Your task to perform on an android device: Add "logitech g910" to the cart on amazon, then select checkout. Image 0: 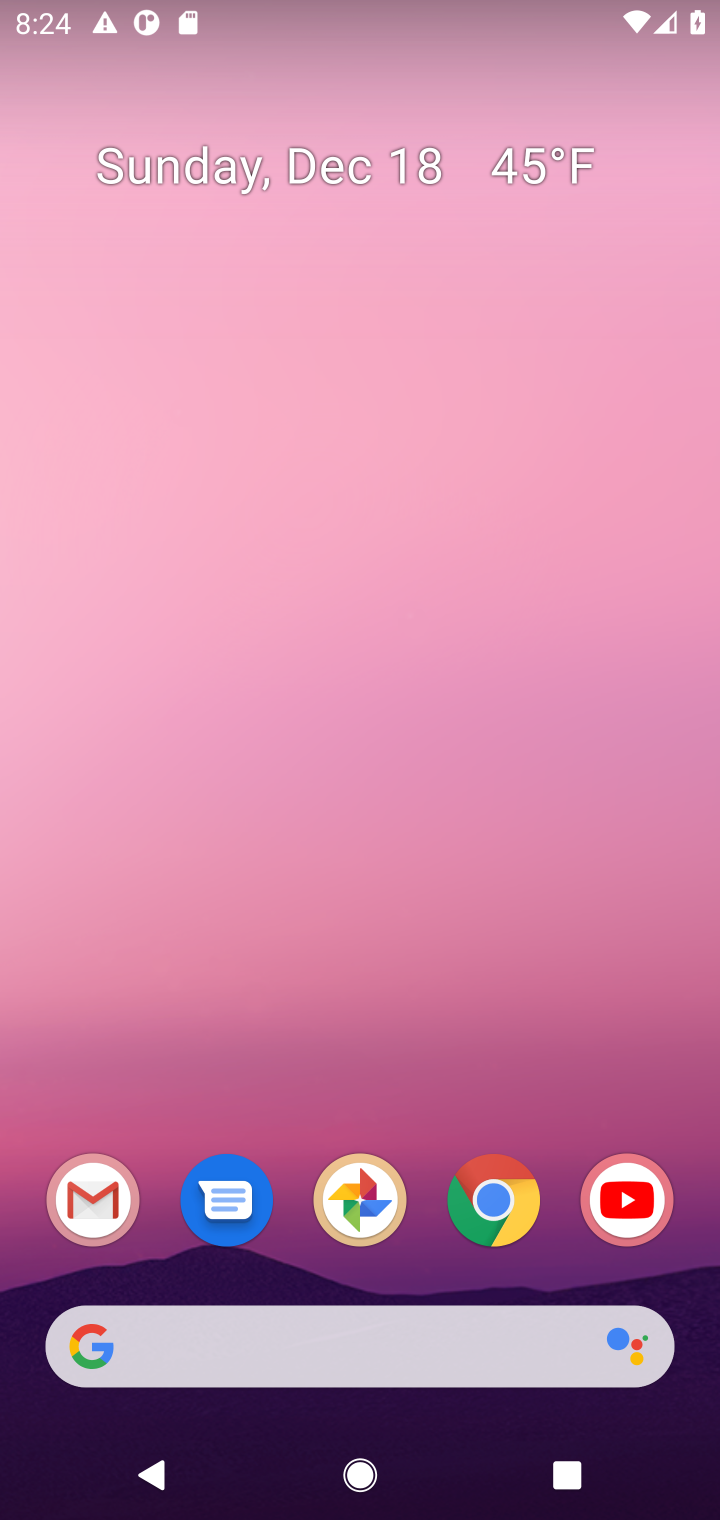
Step 0: click (490, 1212)
Your task to perform on an android device: Add "logitech g910" to the cart on amazon, then select checkout. Image 1: 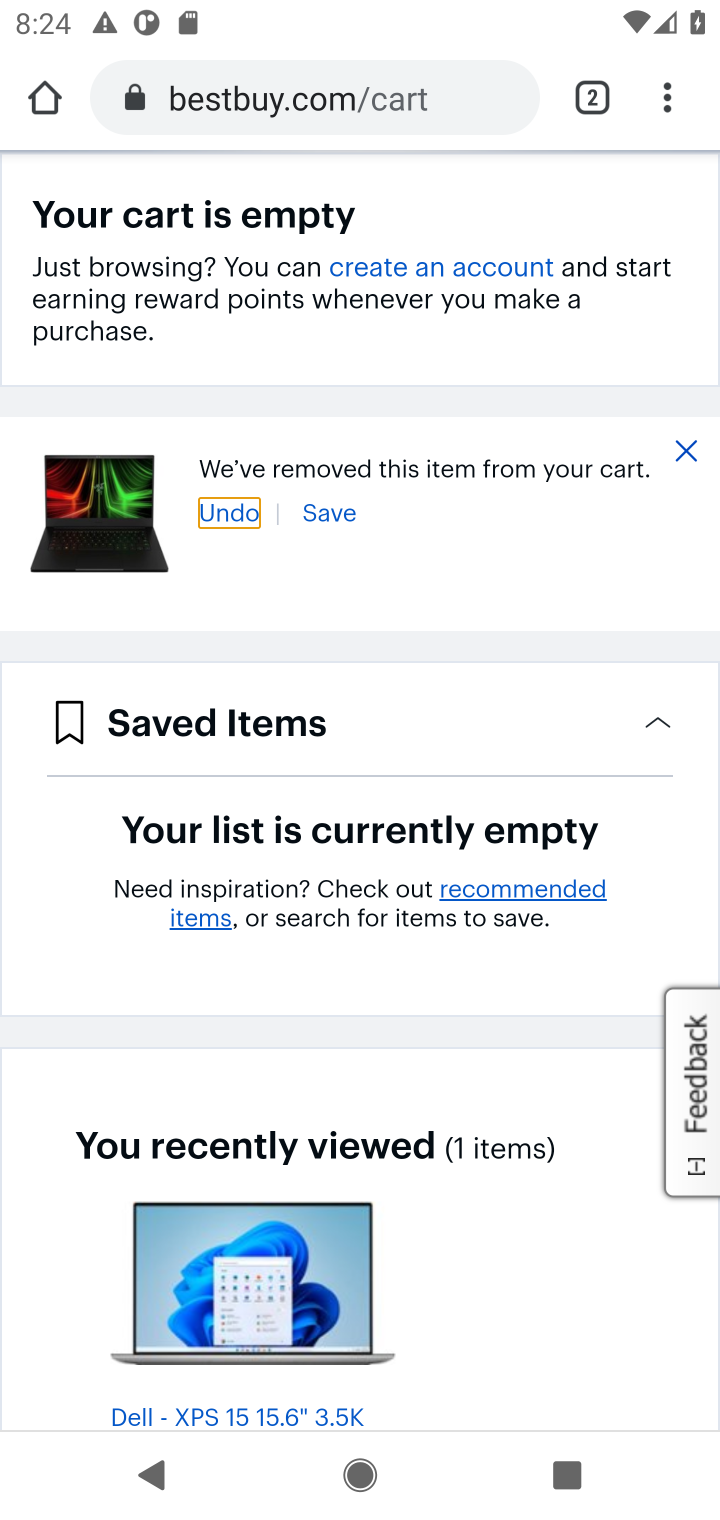
Step 1: click (239, 106)
Your task to perform on an android device: Add "logitech g910" to the cart on amazon, then select checkout. Image 2: 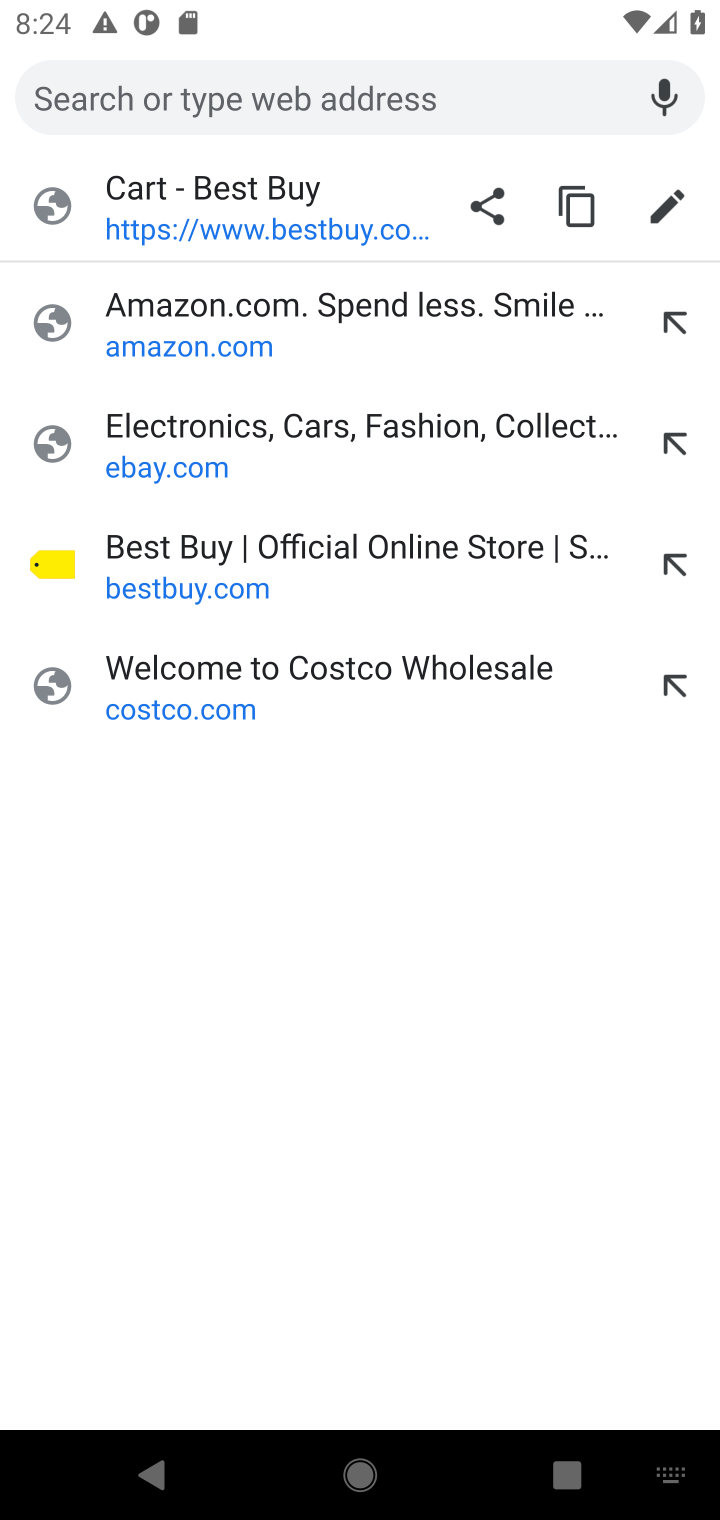
Step 2: click (258, 322)
Your task to perform on an android device: Add "logitech g910" to the cart on amazon, then select checkout. Image 3: 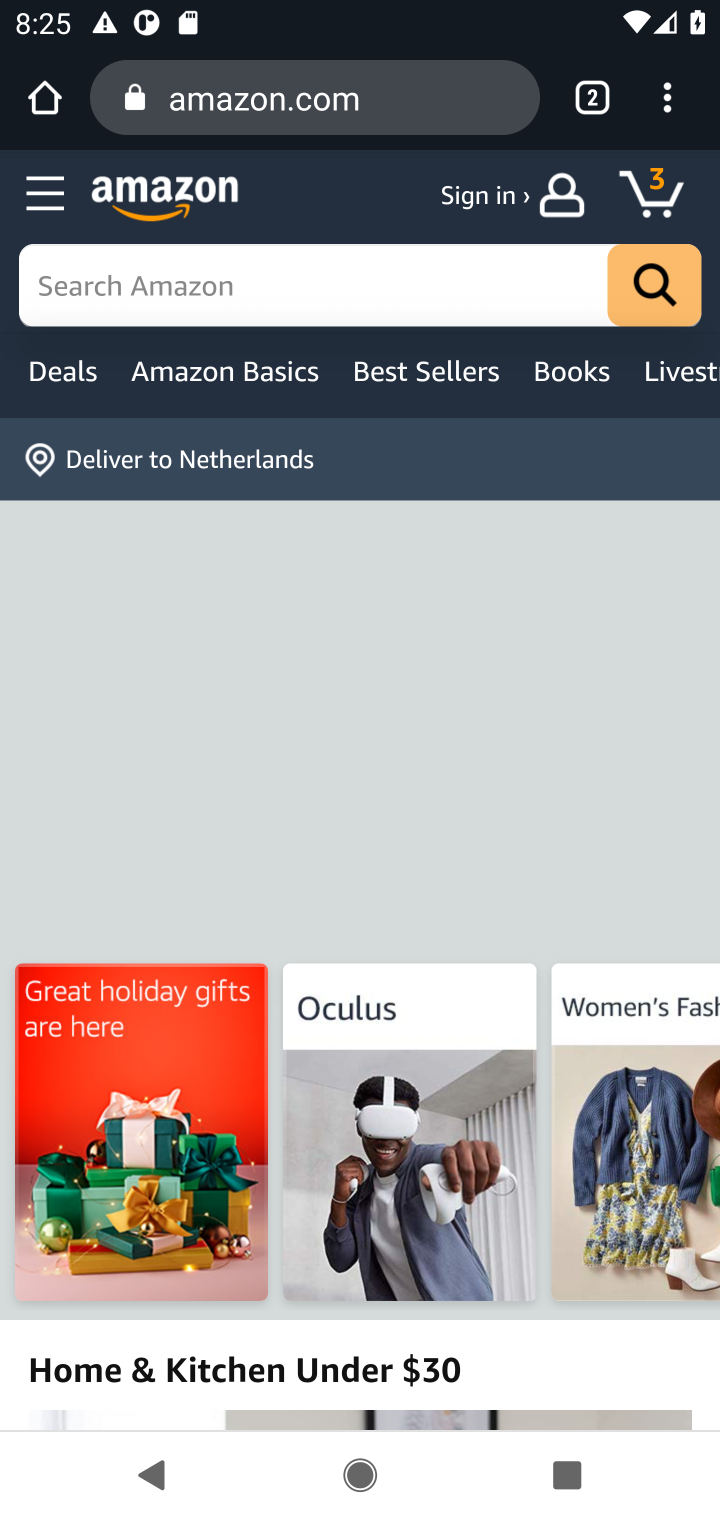
Step 3: click (191, 289)
Your task to perform on an android device: Add "logitech g910" to the cart on amazon, then select checkout. Image 4: 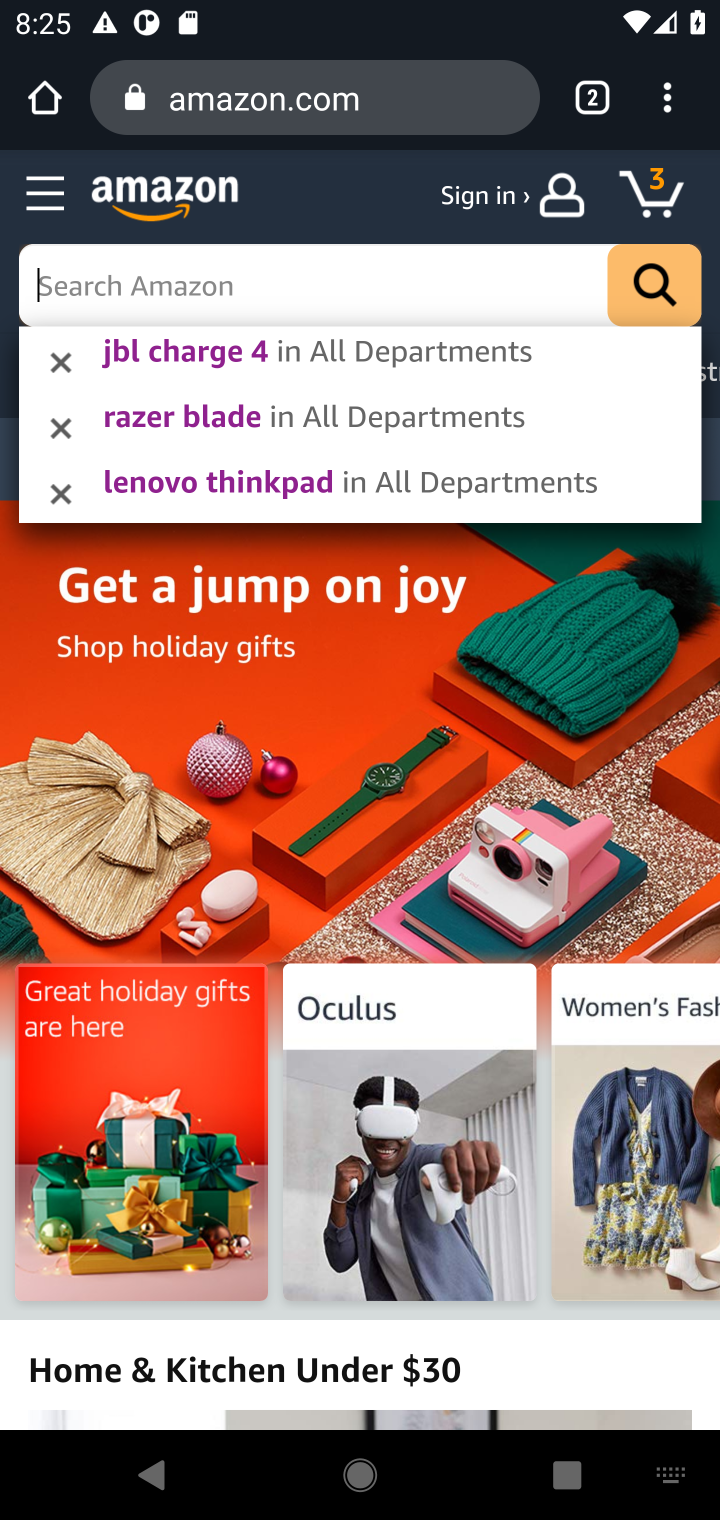
Step 4: type "logitech g910"
Your task to perform on an android device: Add "logitech g910" to the cart on amazon, then select checkout. Image 5: 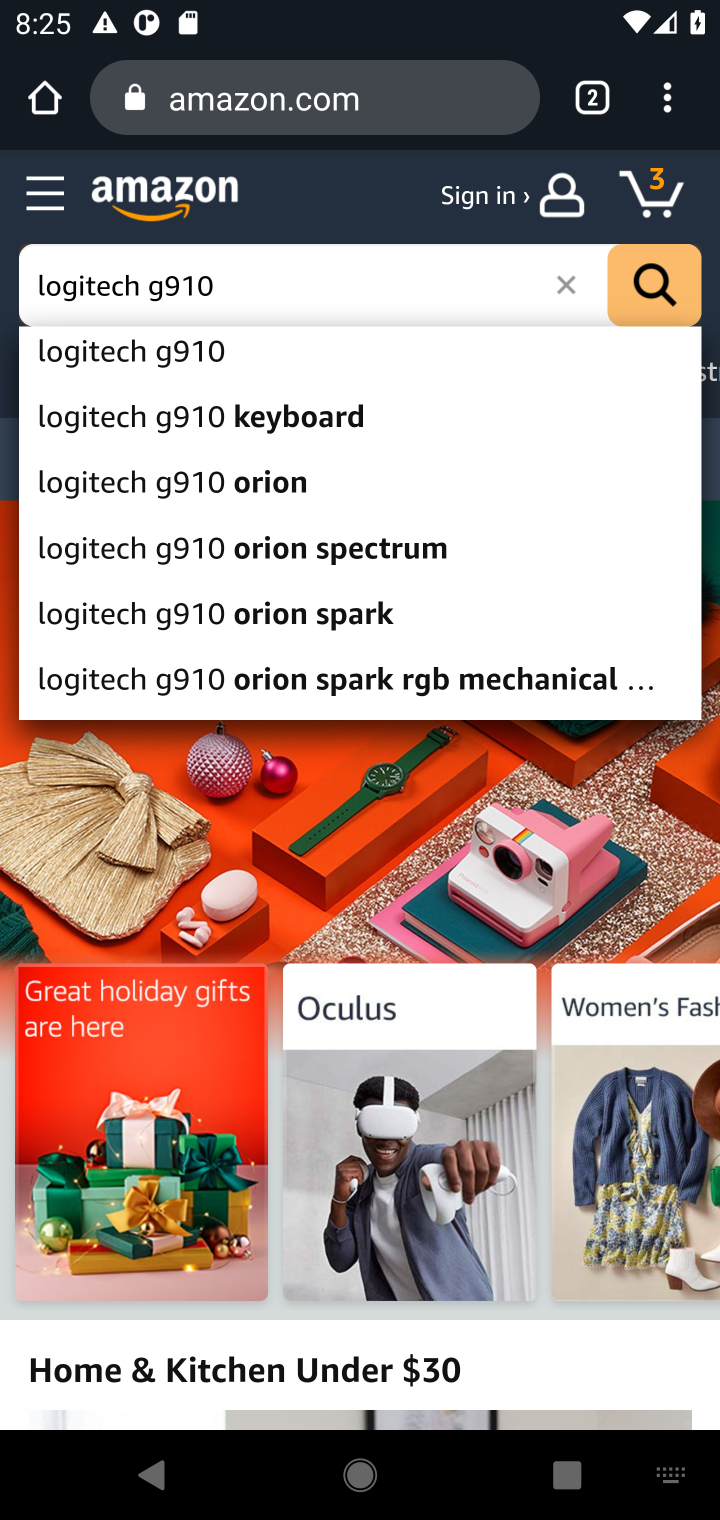
Step 5: click (181, 364)
Your task to perform on an android device: Add "logitech g910" to the cart on amazon, then select checkout. Image 6: 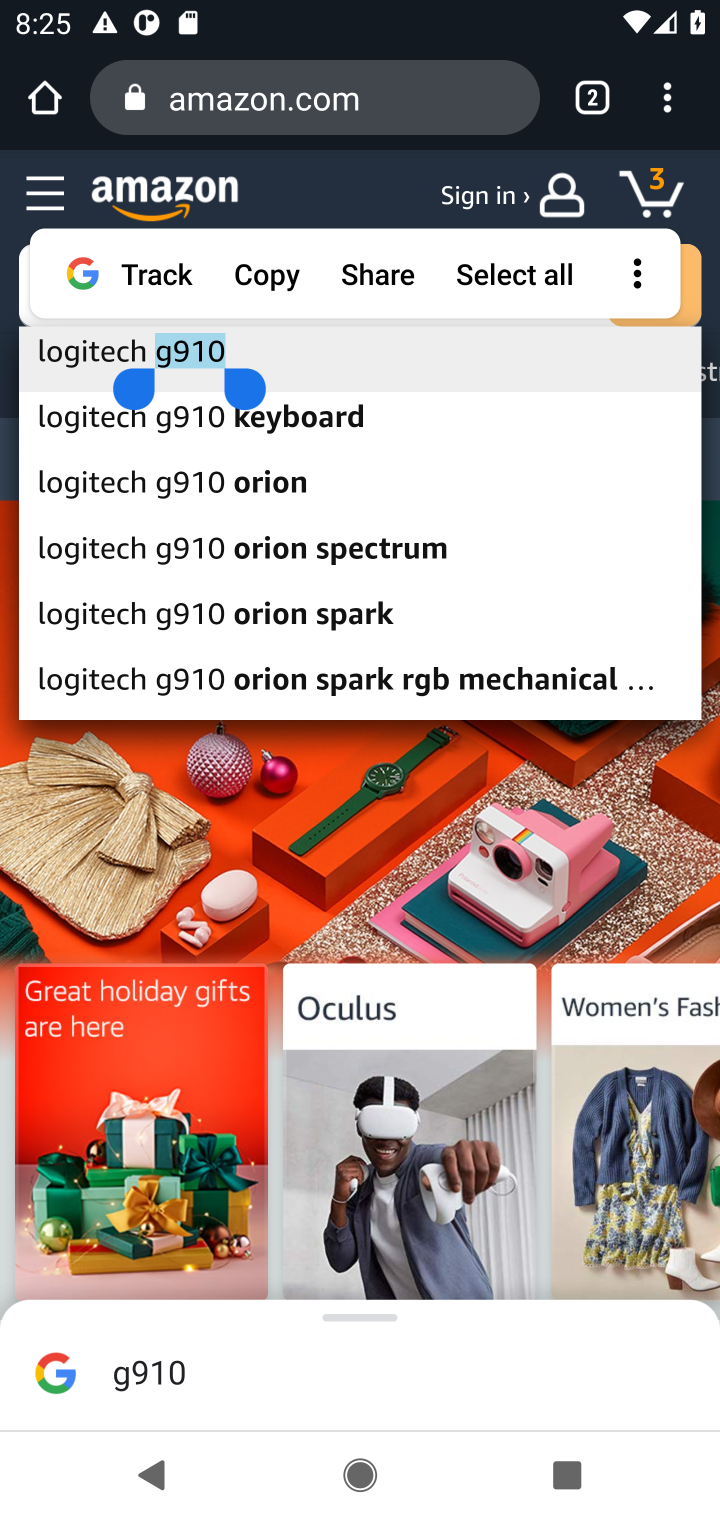
Step 6: click (71, 356)
Your task to perform on an android device: Add "logitech g910" to the cart on amazon, then select checkout. Image 7: 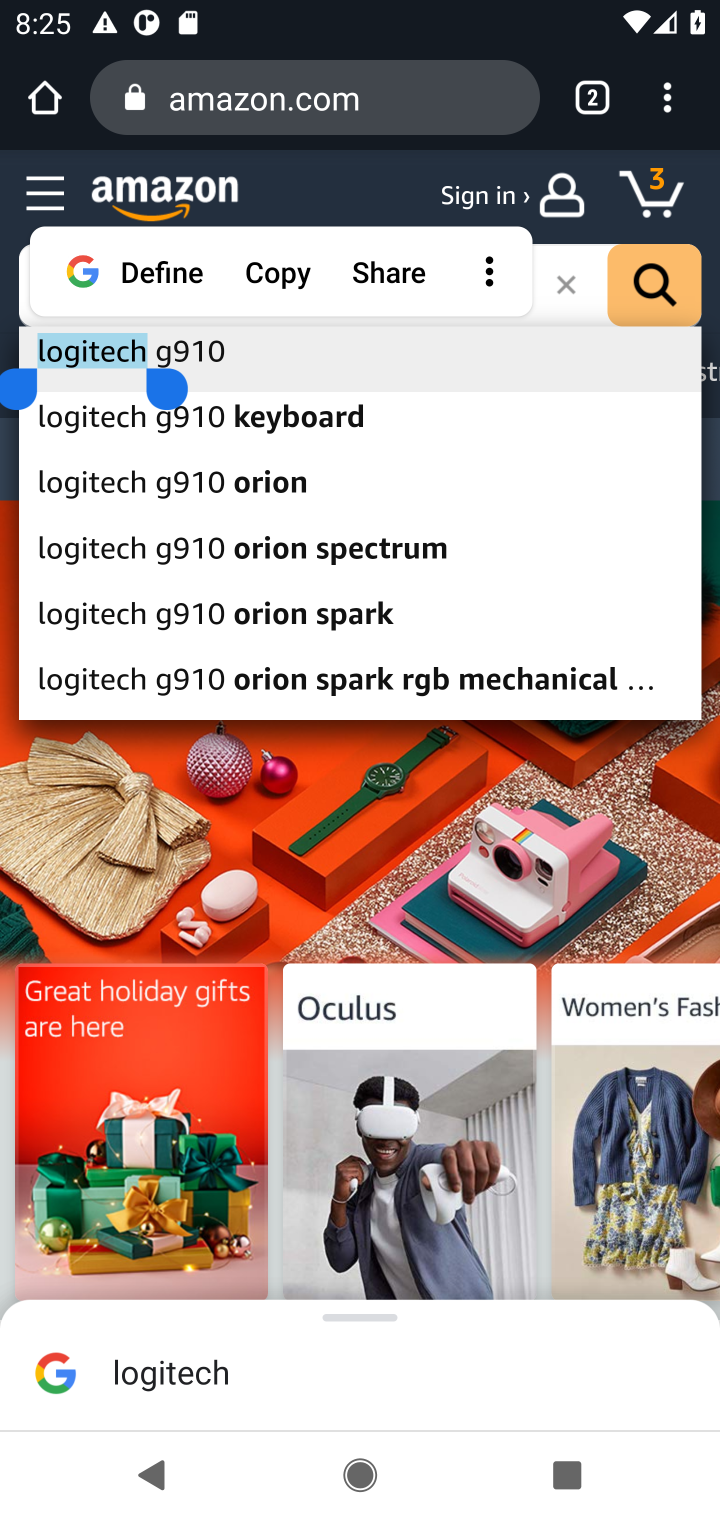
Step 7: click (168, 354)
Your task to perform on an android device: Add "logitech g910" to the cart on amazon, then select checkout. Image 8: 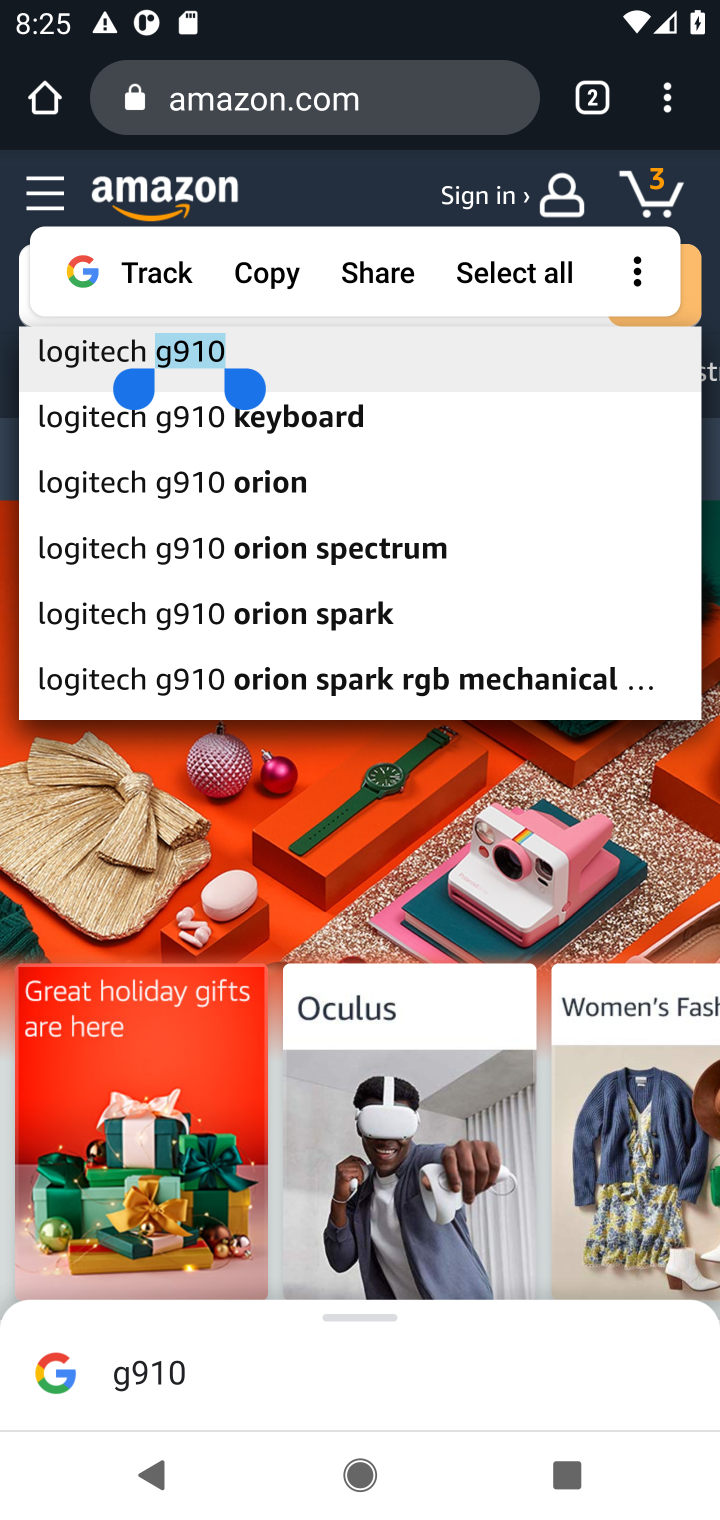
Step 8: click (118, 363)
Your task to perform on an android device: Add "logitech g910" to the cart on amazon, then select checkout. Image 9: 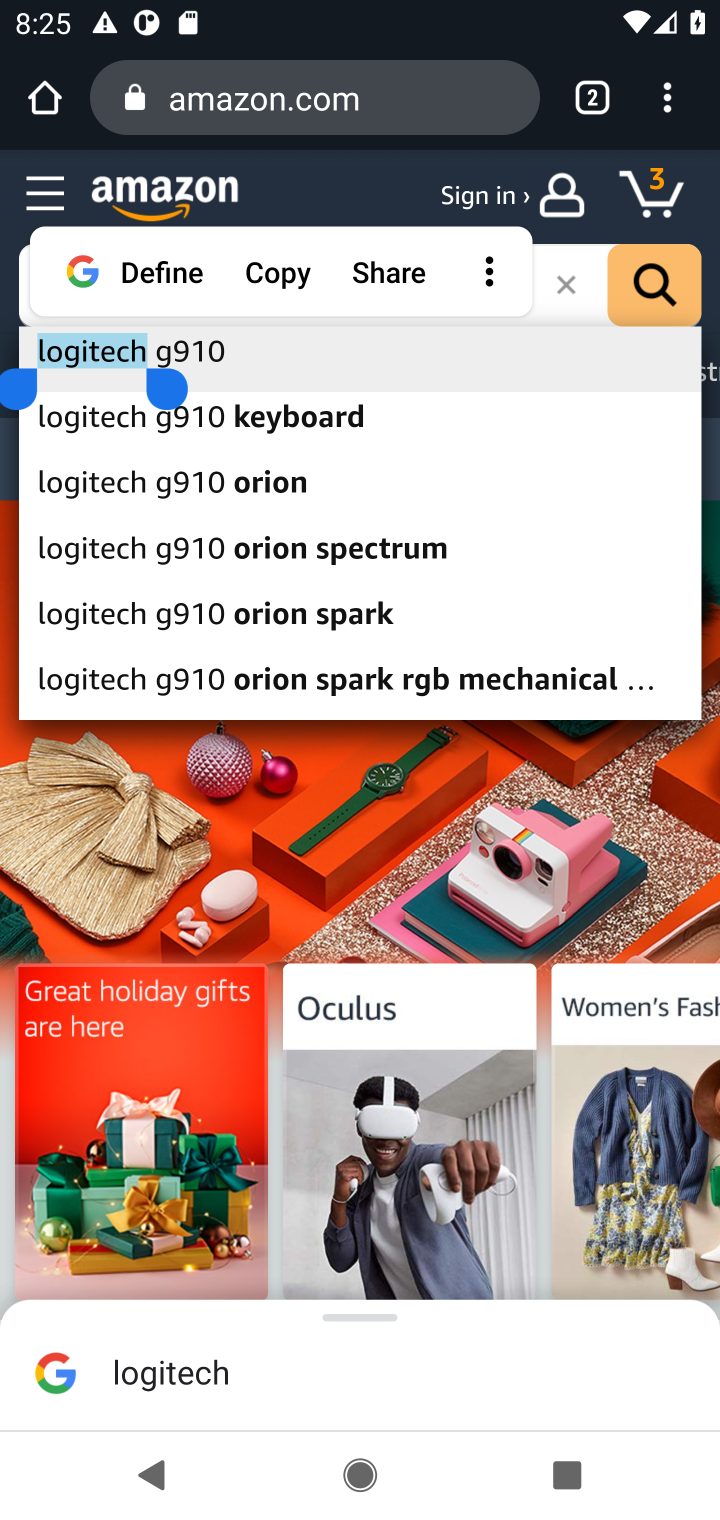
Step 9: click (158, 357)
Your task to perform on an android device: Add "logitech g910" to the cart on amazon, then select checkout. Image 10: 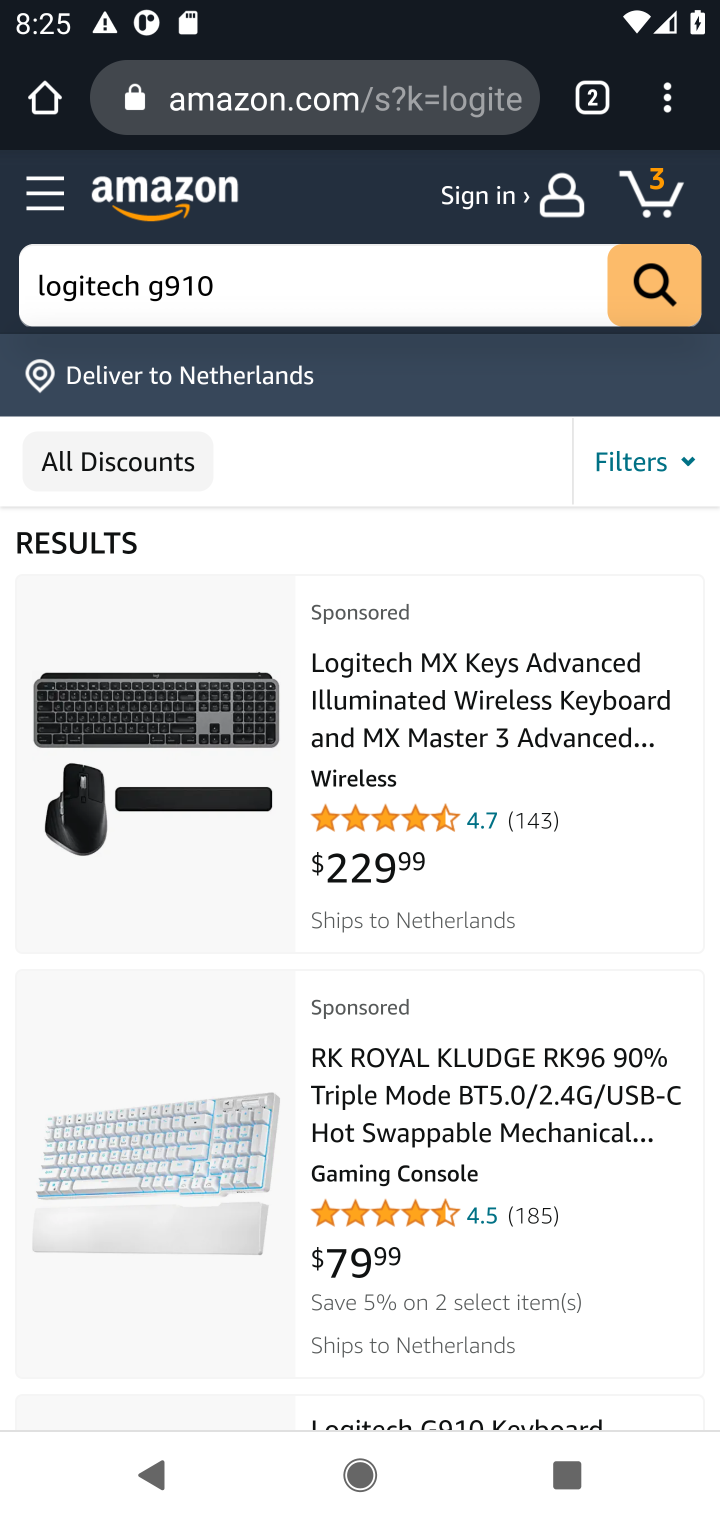
Step 10: drag from (351, 1094) to (388, 598)
Your task to perform on an android device: Add "logitech g910" to the cart on amazon, then select checkout. Image 11: 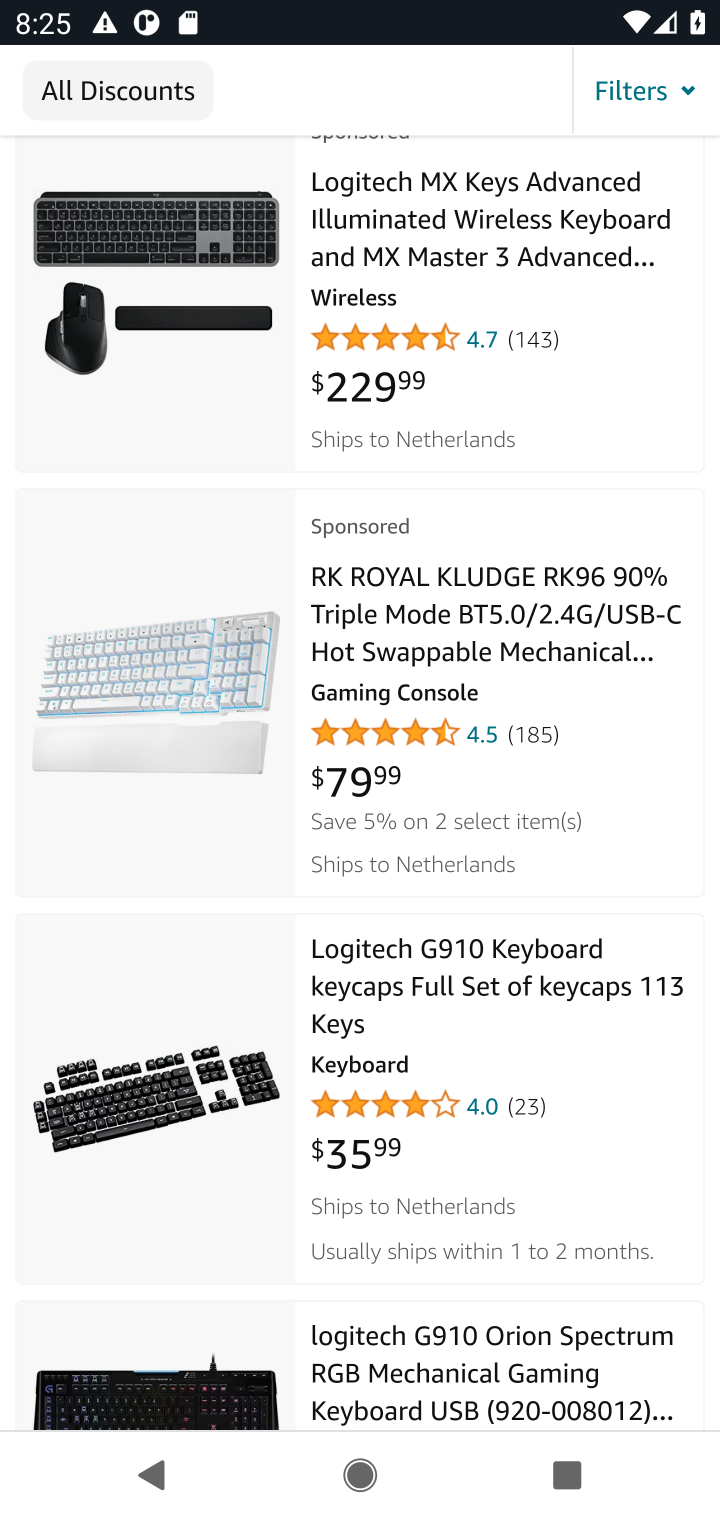
Step 11: click (373, 1019)
Your task to perform on an android device: Add "logitech g910" to the cart on amazon, then select checkout. Image 12: 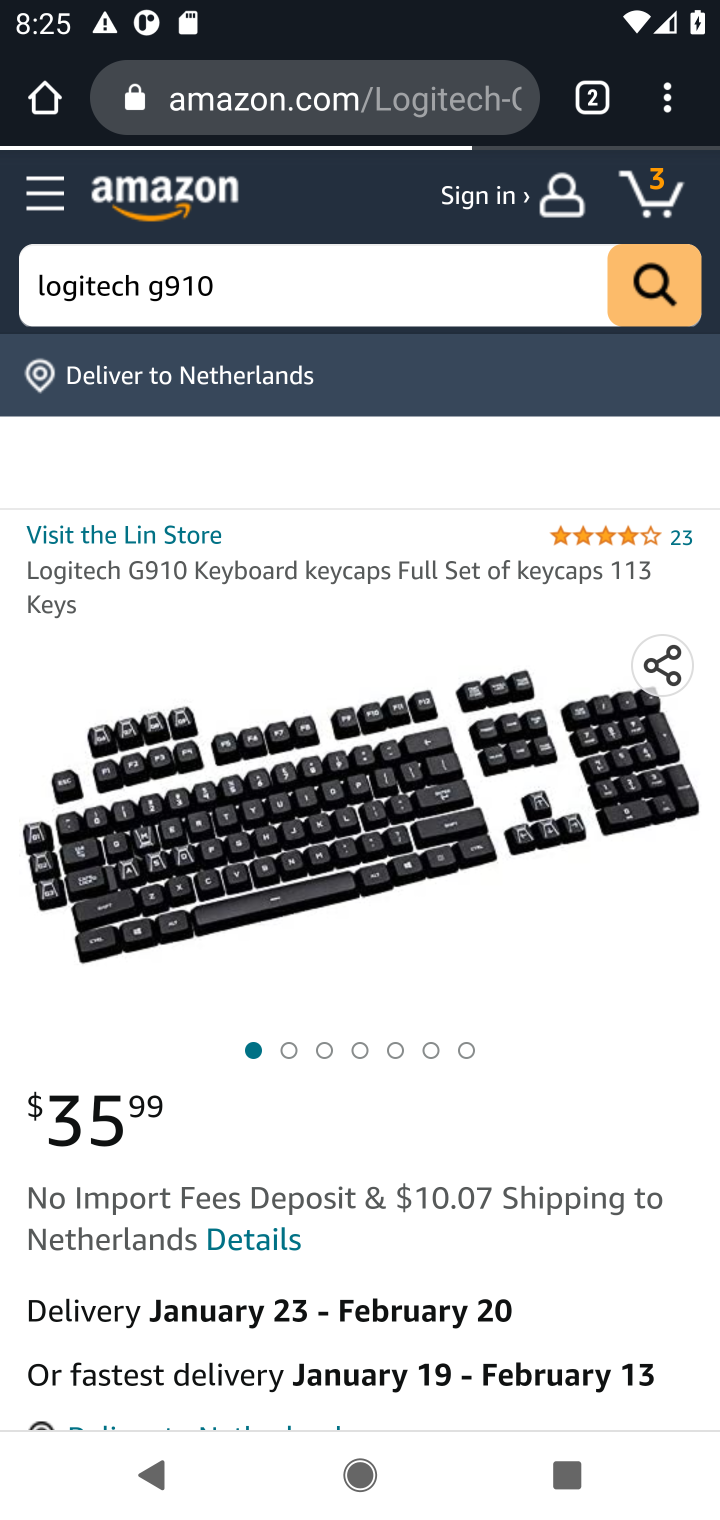
Step 12: drag from (378, 1172) to (410, 299)
Your task to perform on an android device: Add "logitech g910" to the cart on amazon, then select checkout. Image 13: 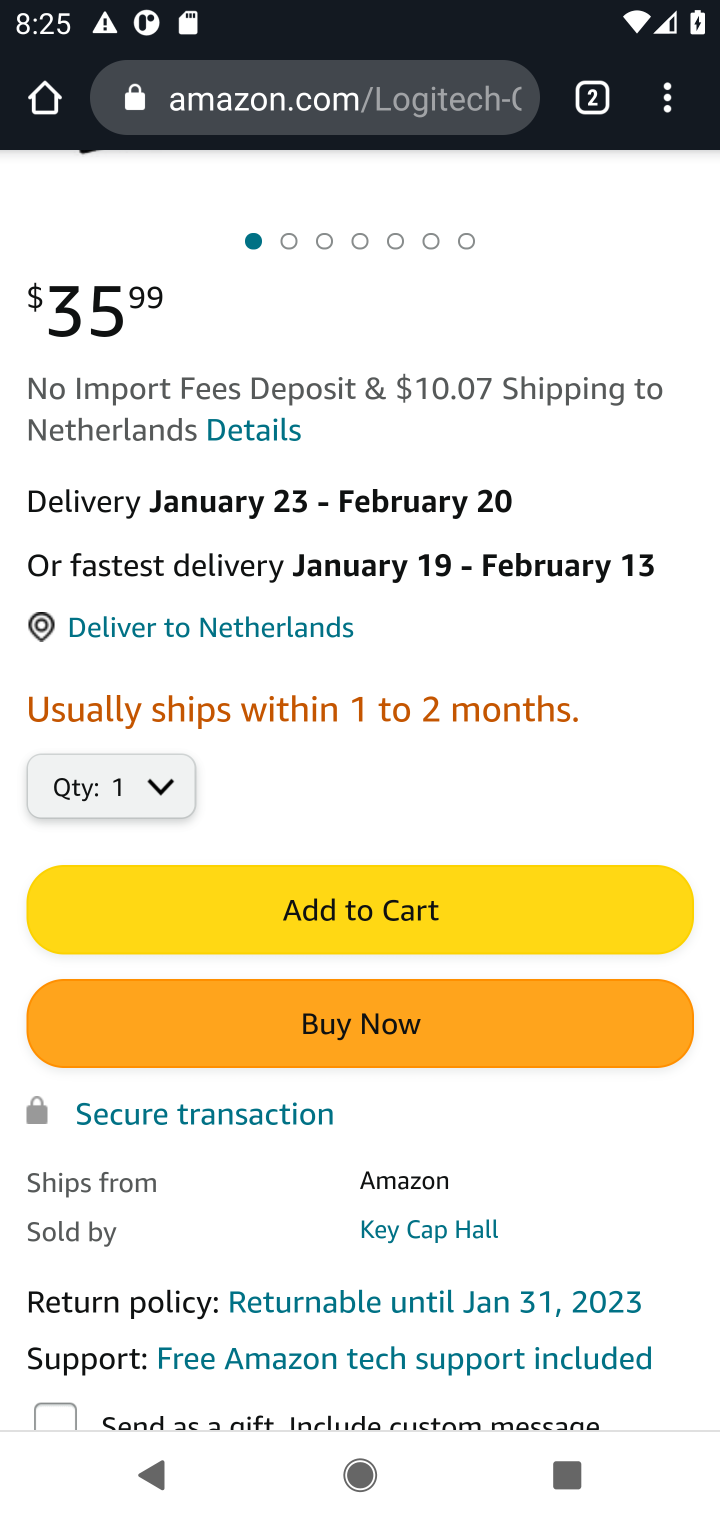
Step 13: click (345, 850)
Your task to perform on an android device: Add "logitech g910" to the cart on amazon, then select checkout. Image 14: 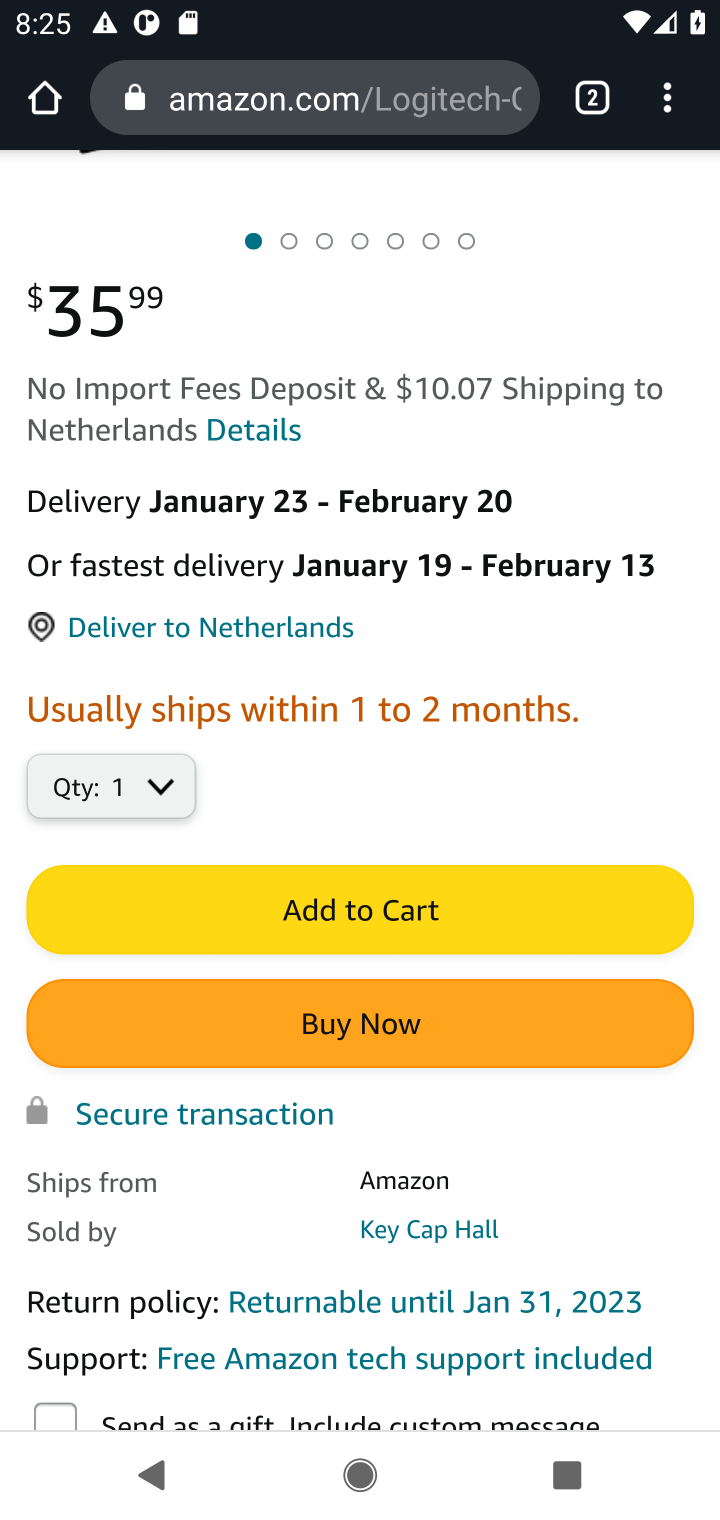
Step 14: click (333, 882)
Your task to perform on an android device: Add "logitech g910" to the cart on amazon, then select checkout. Image 15: 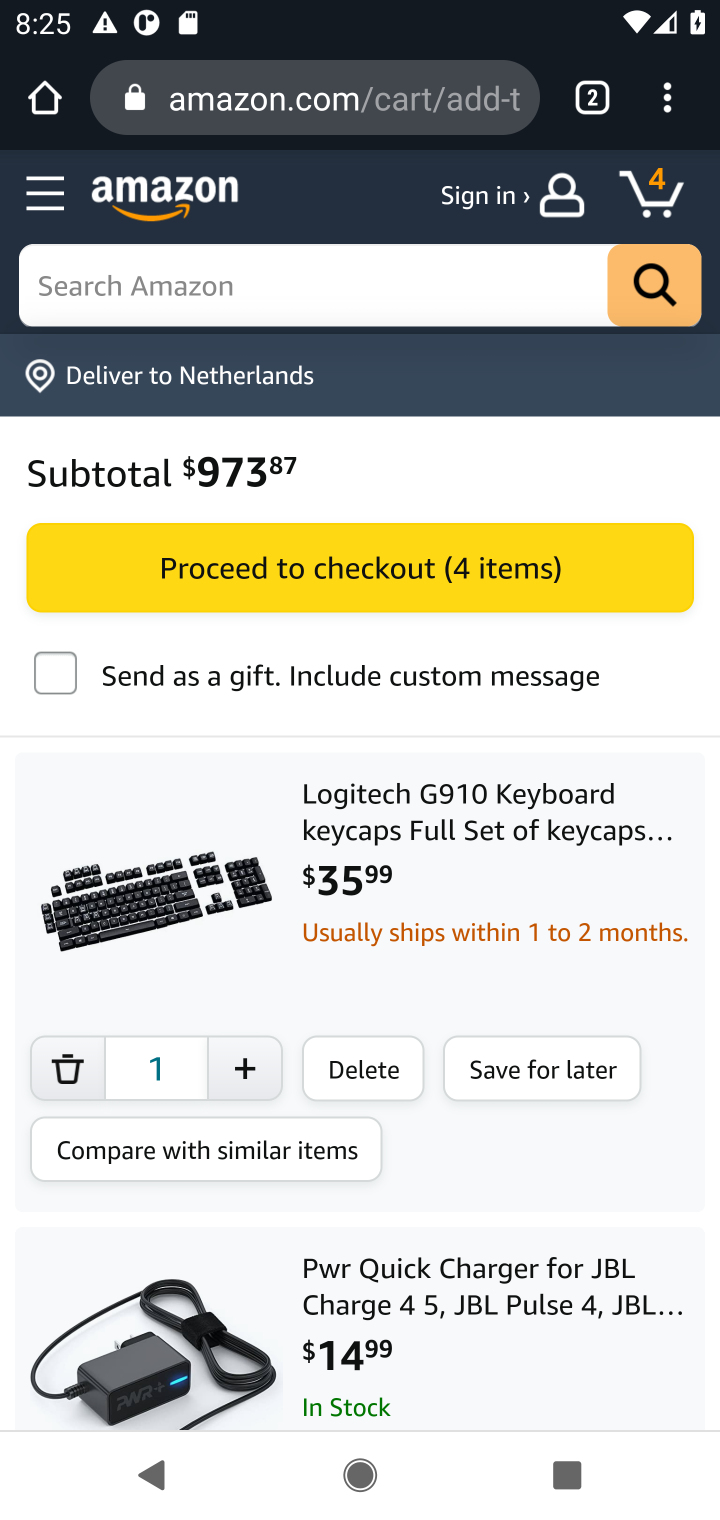
Step 15: click (355, 576)
Your task to perform on an android device: Add "logitech g910" to the cart on amazon, then select checkout. Image 16: 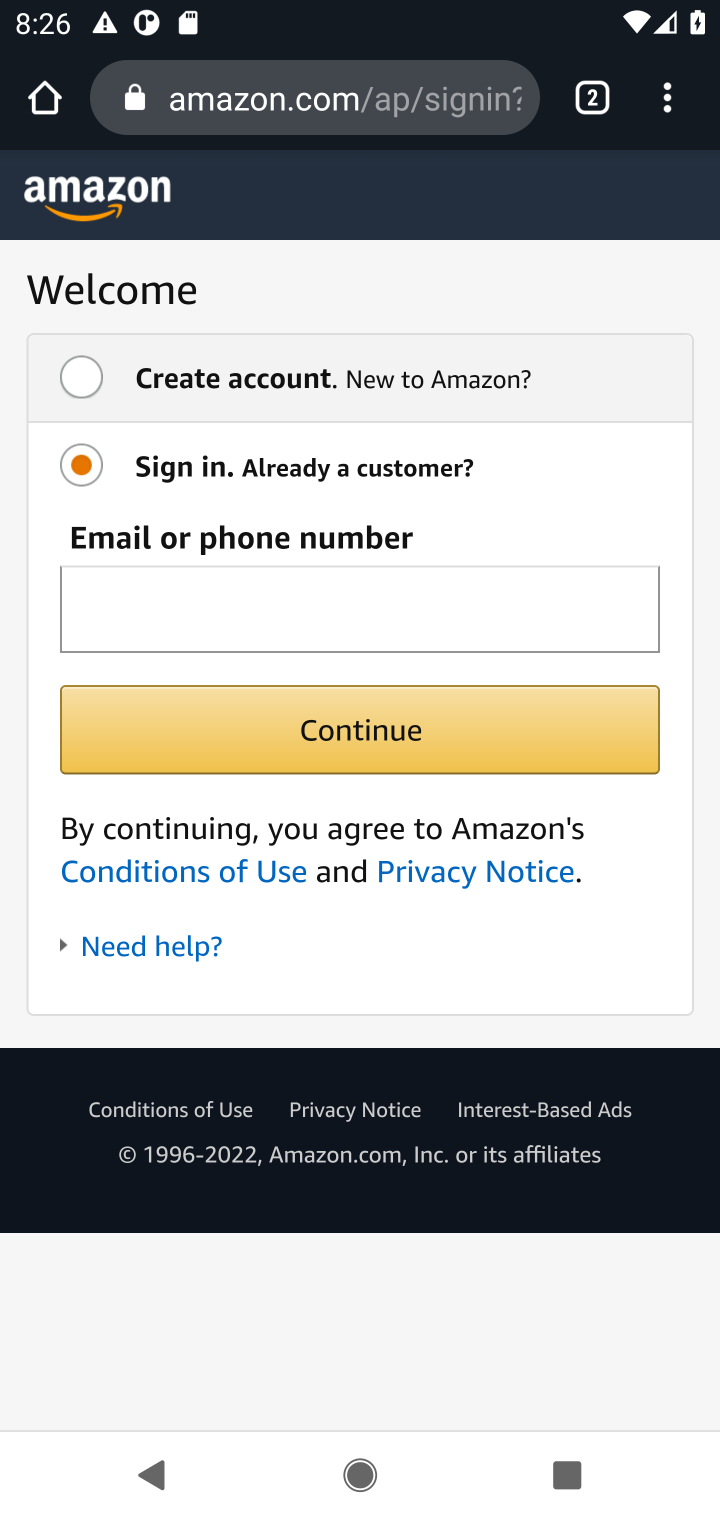
Step 16: task complete